Your task to perform on an android device: Go to wifi settings Image 0: 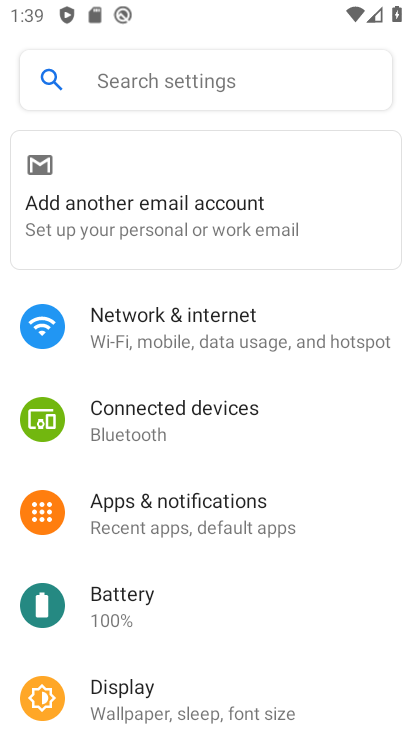
Step 0: click (205, 321)
Your task to perform on an android device: Go to wifi settings Image 1: 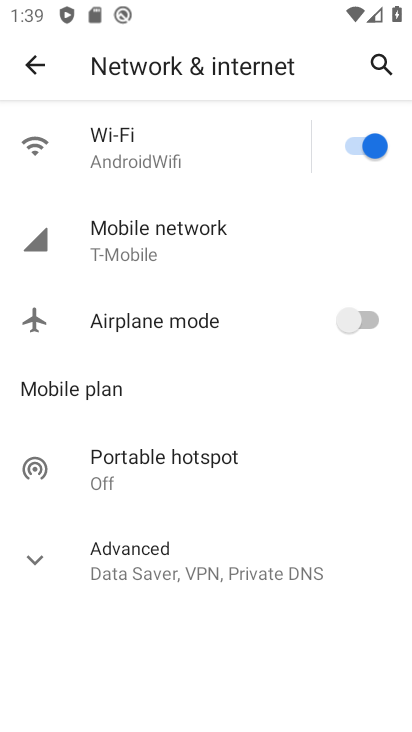
Step 1: click (186, 150)
Your task to perform on an android device: Go to wifi settings Image 2: 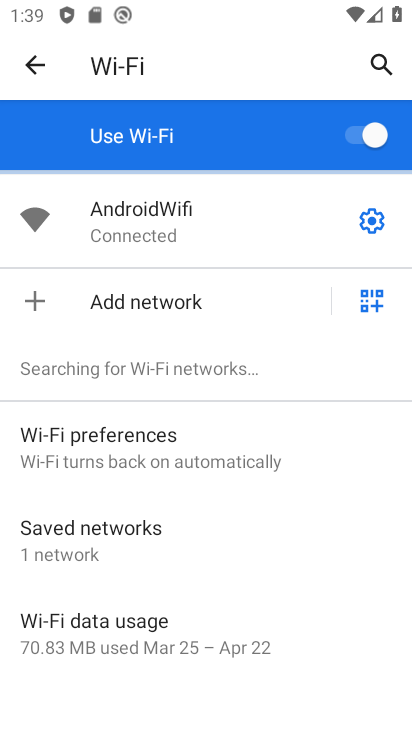
Step 2: drag from (256, 437) to (240, 224)
Your task to perform on an android device: Go to wifi settings Image 3: 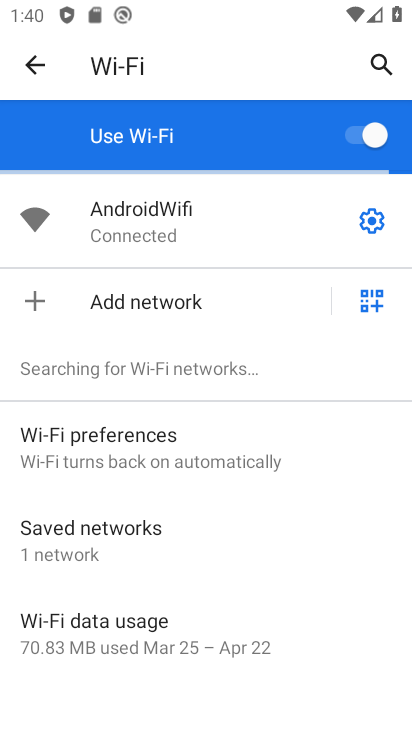
Step 3: click (371, 213)
Your task to perform on an android device: Go to wifi settings Image 4: 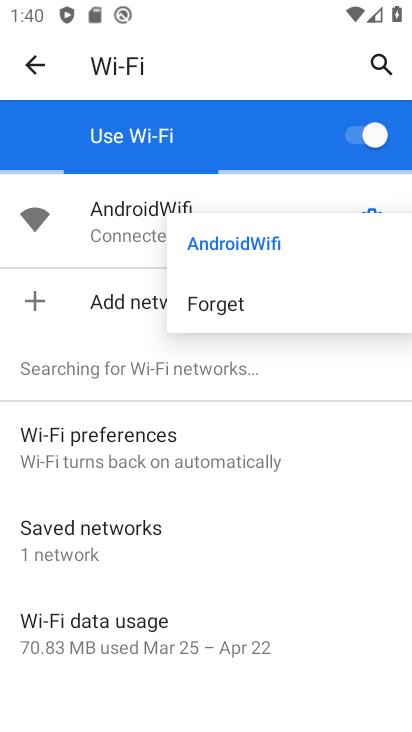
Step 4: click (186, 547)
Your task to perform on an android device: Go to wifi settings Image 5: 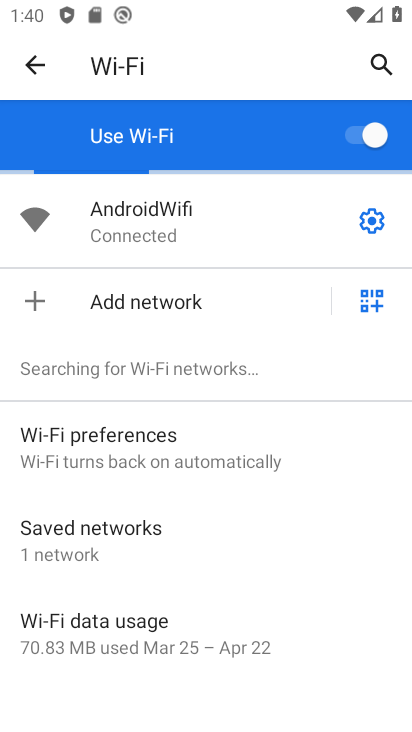
Step 5: task complete